Your task to perform on an android device: What's on my calendar tomorrow? Image 0: 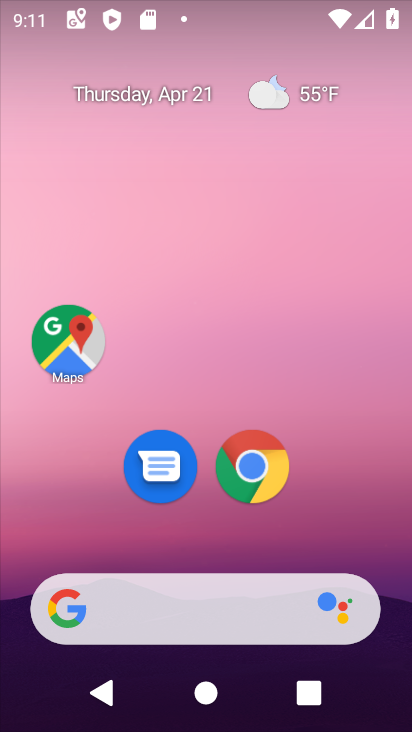
Step 0: press home button
Your task to perform on an android device: What's on my calendar tomorrow? Image 1: 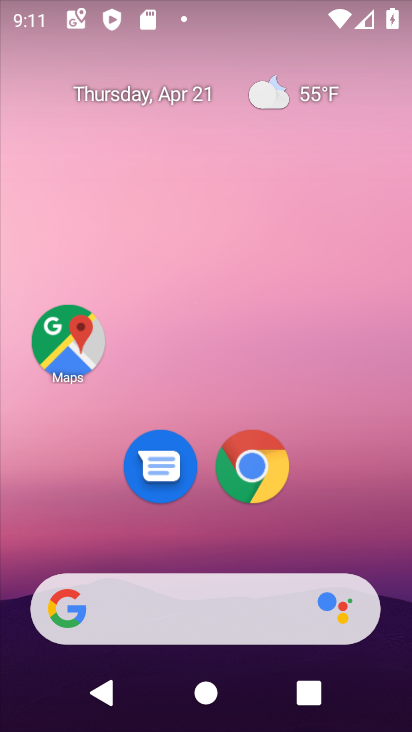
Step 1: drag from (330, 499) to (359, 121)
Your task to perform on an android device: What's on my calendar tomorrow? Image 2: 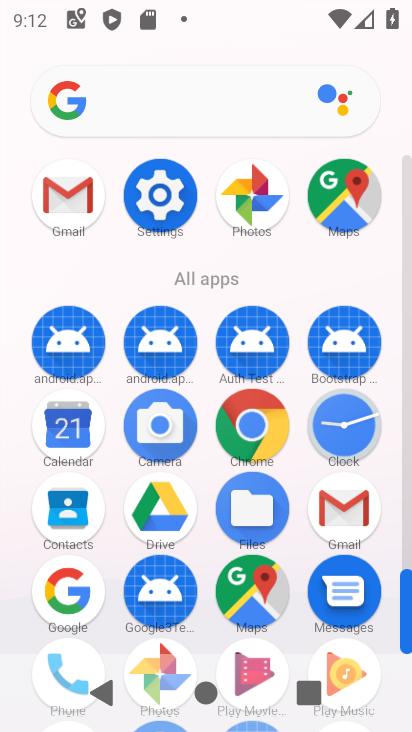
Step 2: drag from (293, 639) to (300, 371)
Your task to perform on an android device: What's on my calendar tomorrow? Image 3: 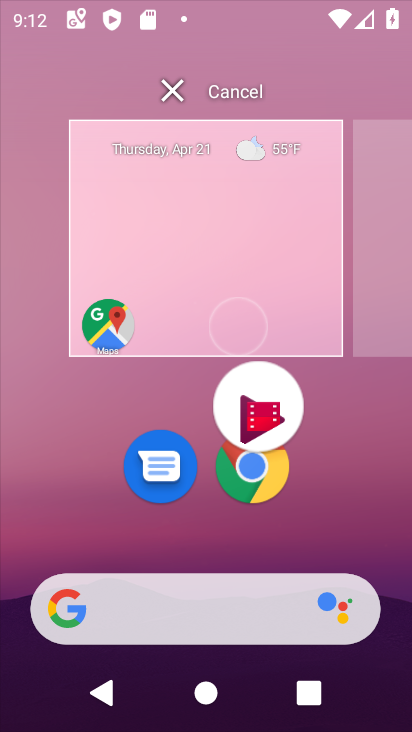
Step 3: drag from (301, 453) to (311, 140)
Your task to perform on an android device: What's on my calendar tomorrow? Image 4: 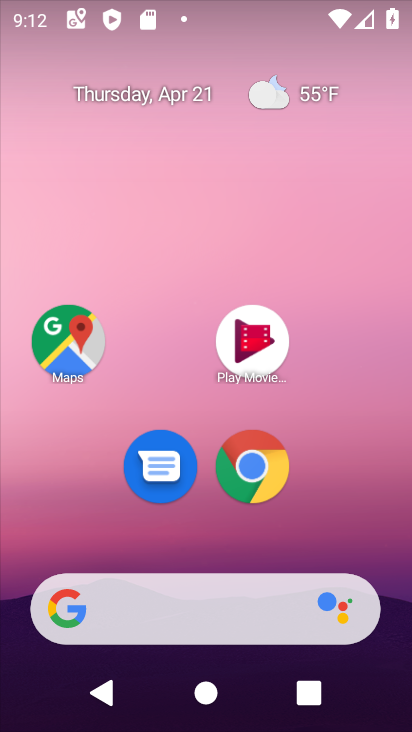
Step 4: drag from (338, 509) to (360, 151)
Your task to perform on an android device: What's on my calendar tomorrow? Image 5: 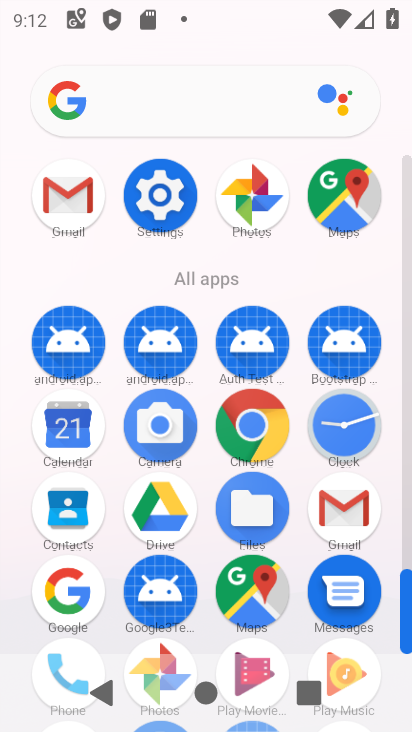
Step 5: click (77, 443)
Your task to perform on an android device: What's on my calendar tomorrow? Image 6: 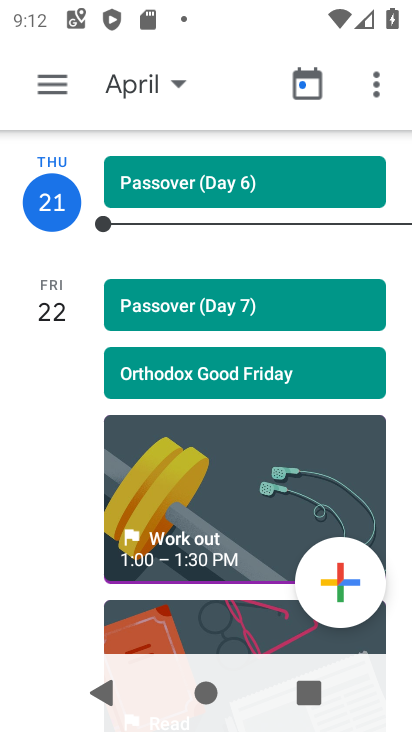
Step 6: click (141, 90)
Your task to perform on an android device: What's on my calendar tomorrow? Image 7: 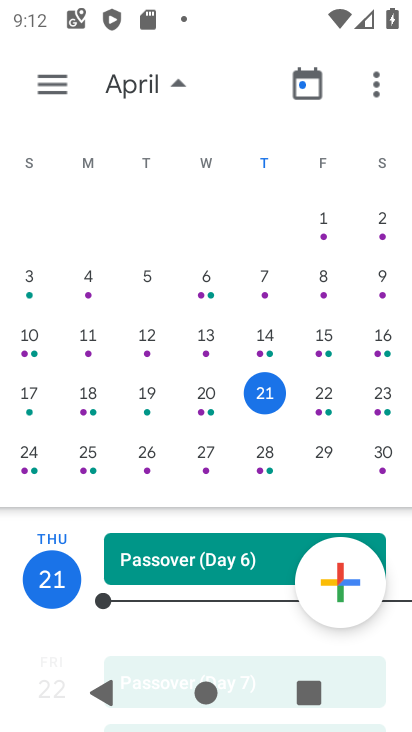
Step 7: drag from (259, 400) to (322, 407)
Your task to perform on an android device: What's on my calendar tomorrow? Image 8: 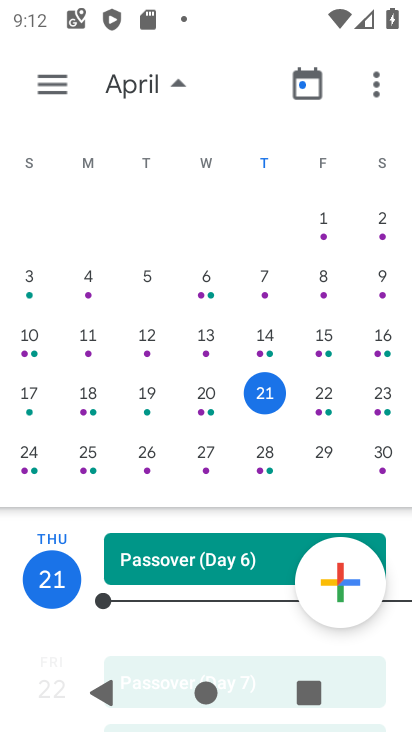
Step 8: click (326, 399)
Your task to perform on an android device: What's on my calendar tomorrow? Image 9: 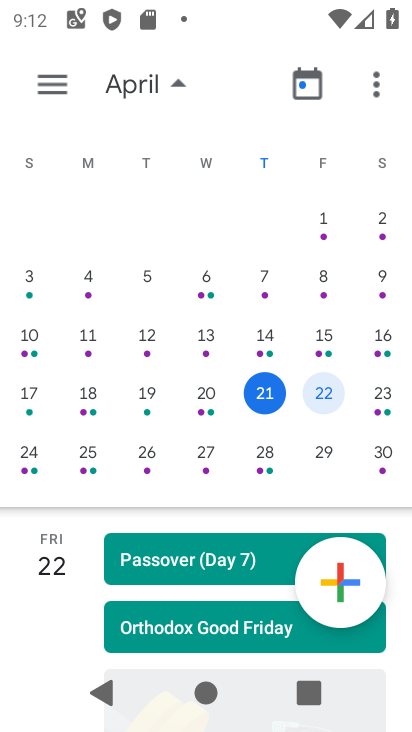
Step 9: task complete